Your task to perform on an android device: Open the calendar and show me this week's events Image 0: 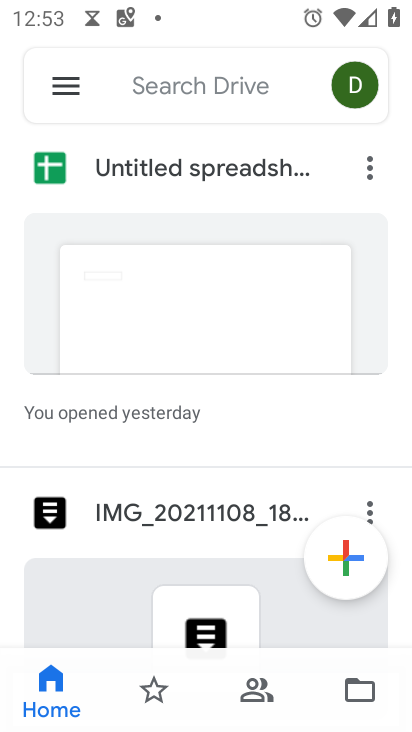
Step 0: press home button
Your task to perform on an android device: Open the calendar and show me this week's events Image 1: 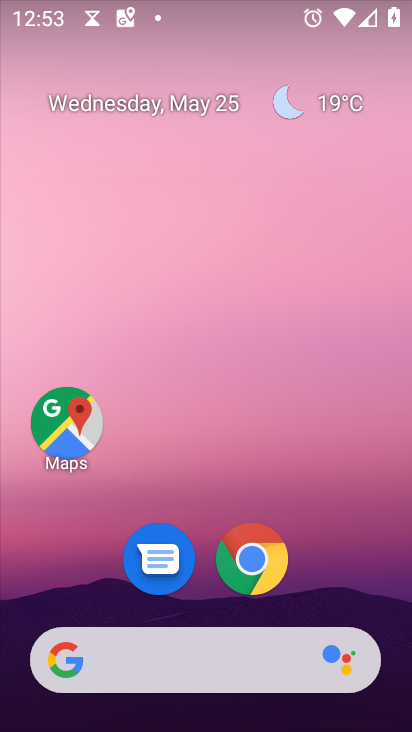
Step 1: drag from (338, 626) to (336, 59)
Your task to perform on an android device: Open the calendar and show me this week's events Image 2: 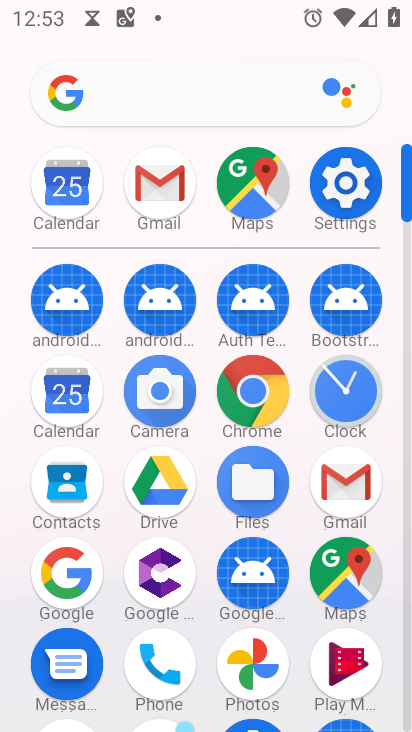
Step 2: click (65, 399)
Your task to perform on an android device: Open the calendar and show me this week's events Image 3: 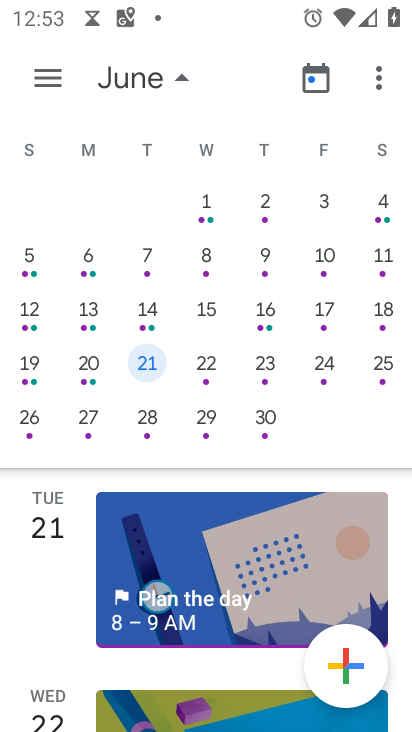
Step 3: click (155, 427)
Your task to perform on an android device: Open the calendar and show me this week's events Image 4: 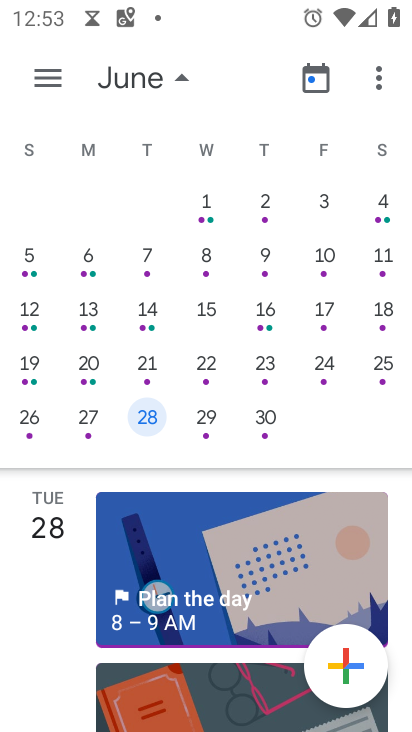
Step 4: task complete